Your task to perform on an android device: Search for alienware area 51 on costco, select the first entry, and add it to the cart. Image 0: 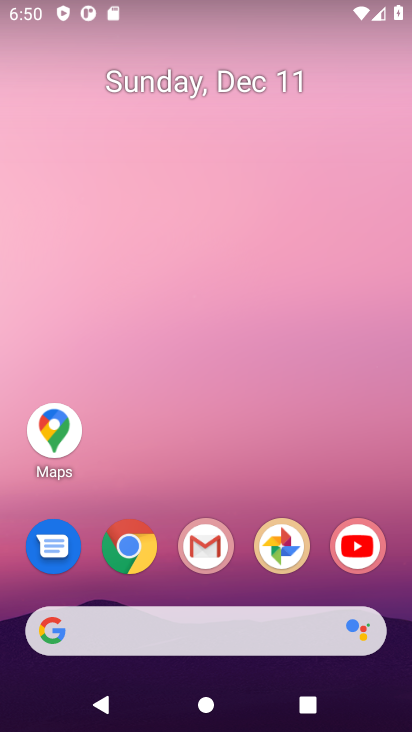
Step 0: click (127, 546)
Your task to perform on an android device: Search for alienware area 51 on costco, select the first entry, and add it to the cart. Image 1: 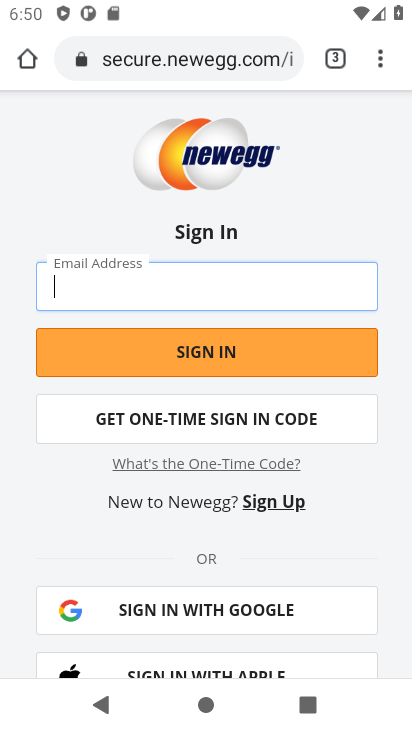
Step 1: click (174, 59)
Your task to perform on an android device: Search for alienware area 51 on costco, select the first entry, and add it to the cart. Image 2: 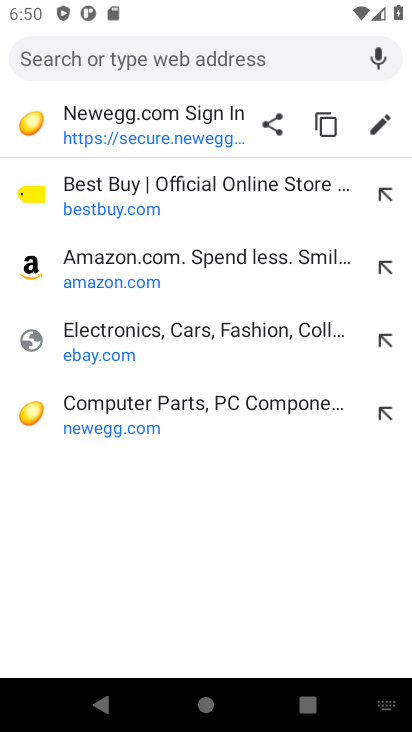
Step 2: type "costco.com"
Your task to perform on an android device: Search for alienware area 51 on costco, select the first entry, and add it to the cart. Image 3: 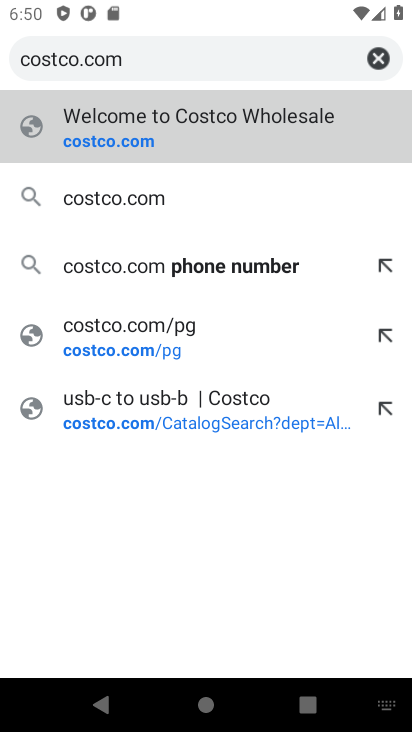
Step 3: click (110, 151)
Your task to perform on an android device: Search for alienware area 51 on costco, select the first entry, and add it to the cart. Image 4: 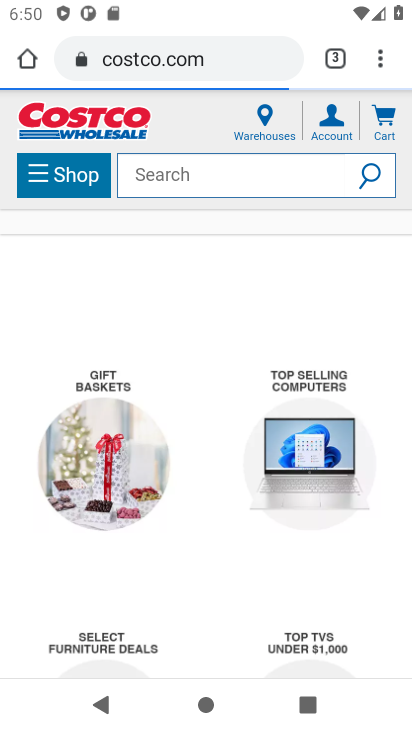
Step 4: click (149, 176)
Your task to perform on an android device: Search for alienware area 51 on costco, select the first entry, and add it to the cart. Image 5: 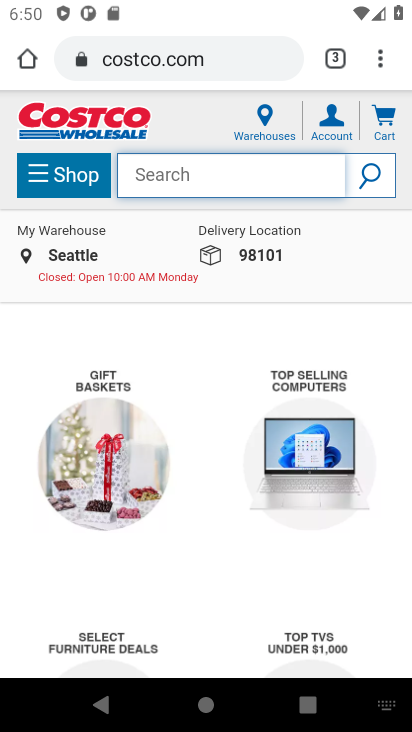
Step 5: type "alienware area 51"
Your task to perform on an android device: Search for alienware area 51 on costco, select the first entry, and add it to the cart. Image 6: 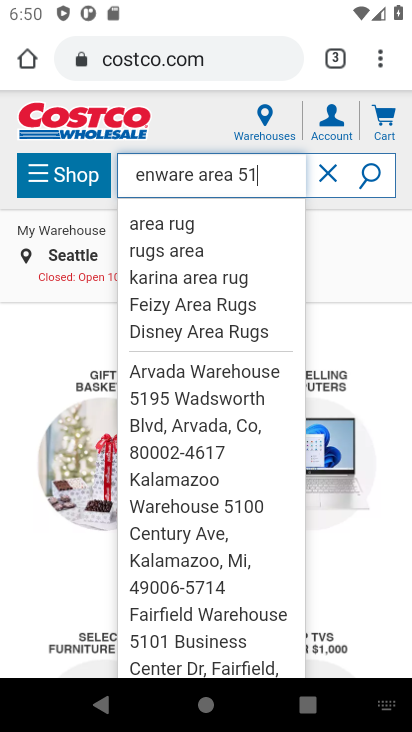
Step 6: click (382, 177)
Your task to perform on an android device: Search for alienware area 51 on costco, select the first entry, and add it to the cart. Image 7: 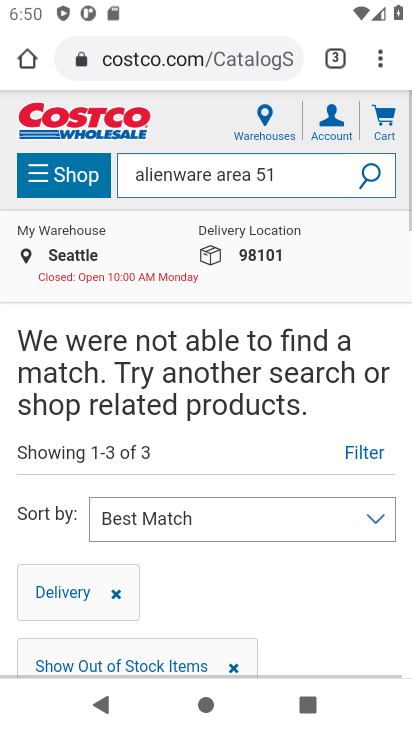
Step 7: task complete